Your task to perform on an android device: Go to Android settings Image 0: 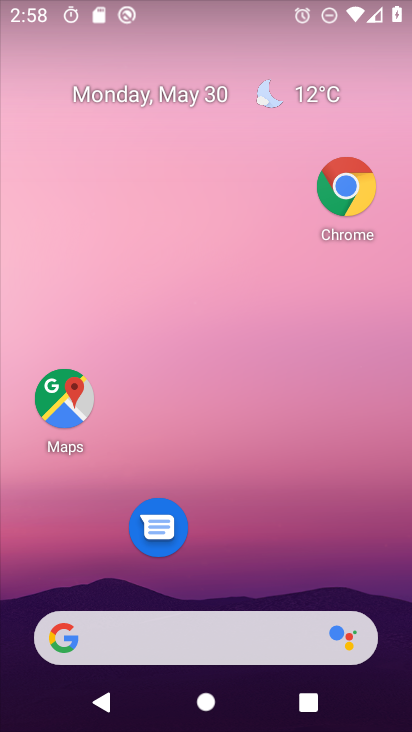
Step 0: drag from (222, 533) to (268, 91)
Your task to perform on an android device: Go to Android settings Image 1: 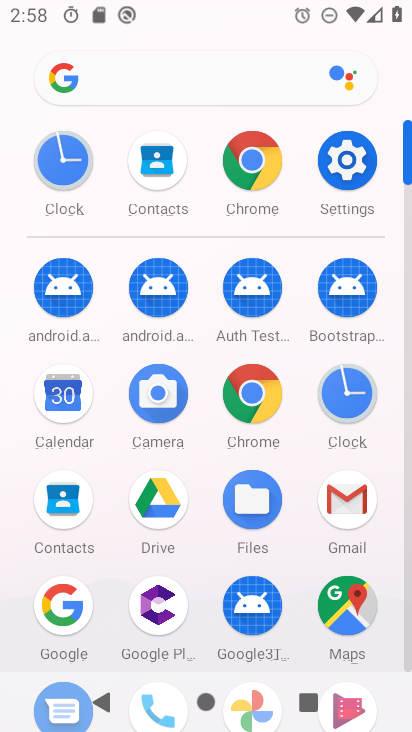
Step 1: click (344, 149)
Your task to perform on an android device: Go to Android settings Image 2: 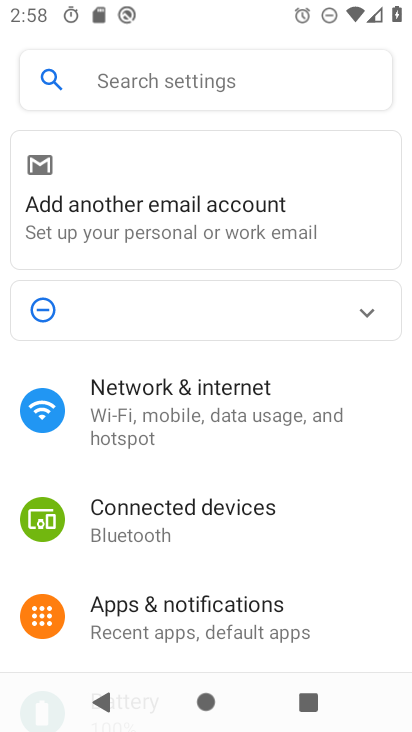
Step 2: drag from (201, 566) to (163, 1)
Your task to perform on an android device: Go to Android settings Image 3: 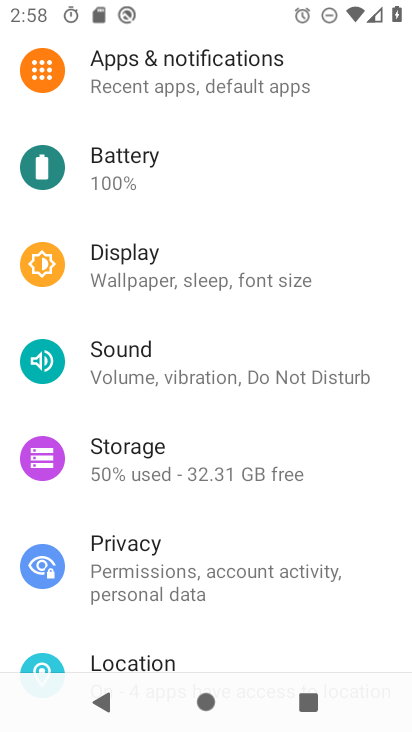
Step 3: drag from (239, 582) to (295, 169)
Your task to perform on an android device: Go to Android settings Image 4: 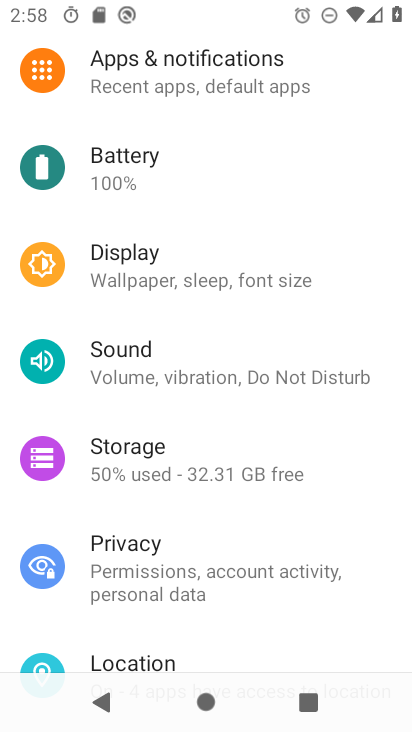
Step 4: drag from (177, 585) to (277, 15)
Your task to perform on an android device: Go to Android settings Image 5: 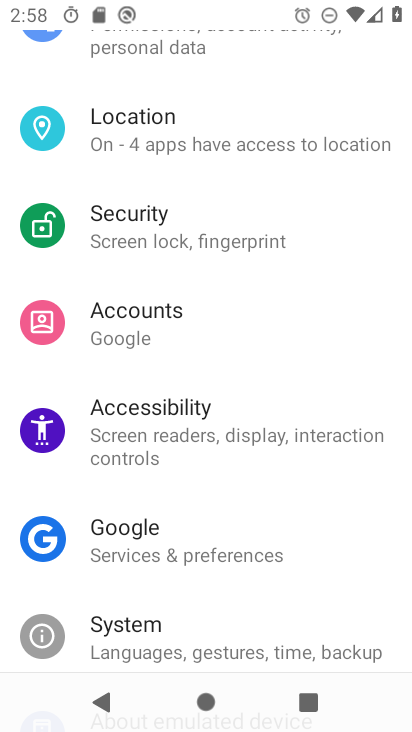
Step 5: drag from (227, 542) to (228, 5)
Your task to perform on an android device: Go to Android settings Image 6: 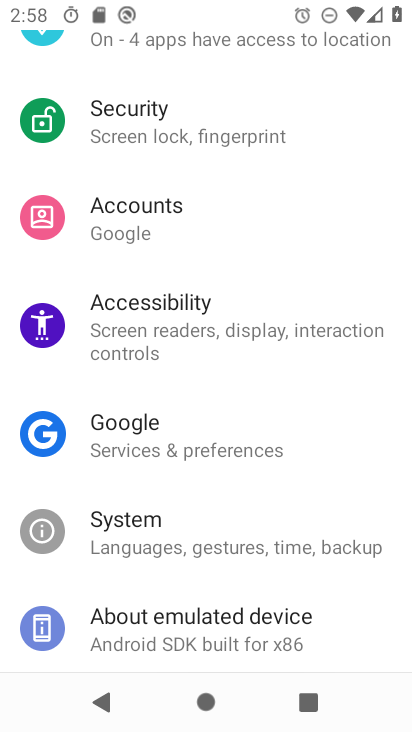
Step 6: click (215, 626)
Your task to perform on an android device: Go to Android settings Image 7: 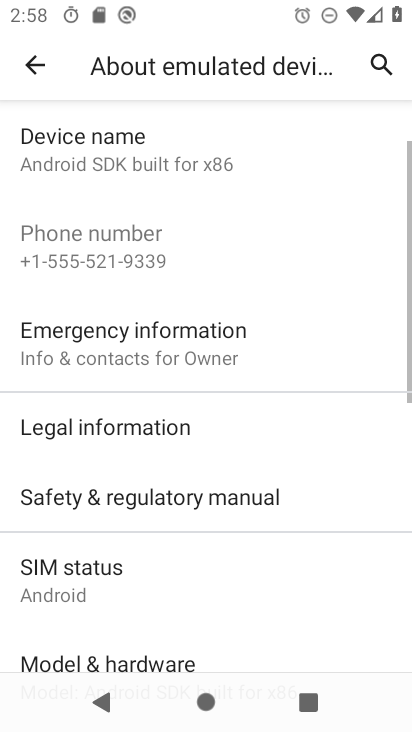
Step 7: drag from (232, 587) to (342, 3)
Your task to perform on an android device: Go to Android settings Image 8: 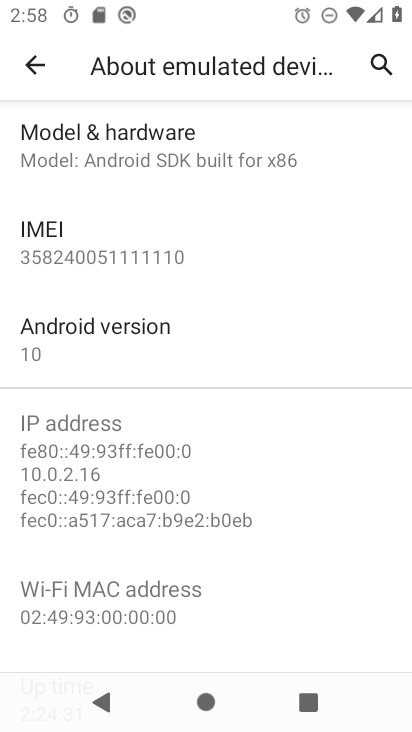
Step 8: click (199, 367)
Your task to perform on an android device: Go to Android settings Image 9: 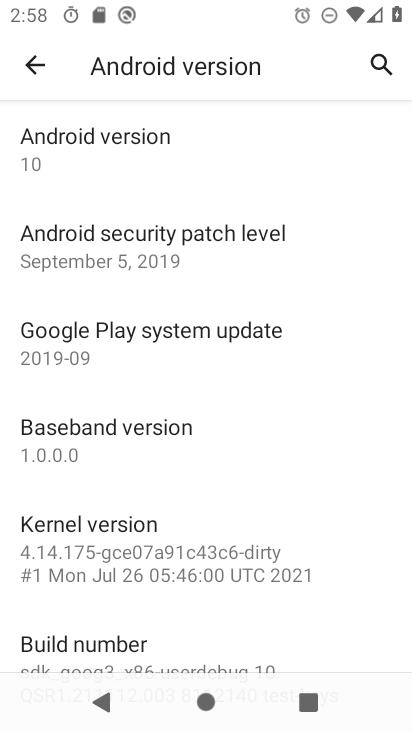
Step 9: click (121, 142)
Your task to perform on an android device: Go to Android settings Image 10: 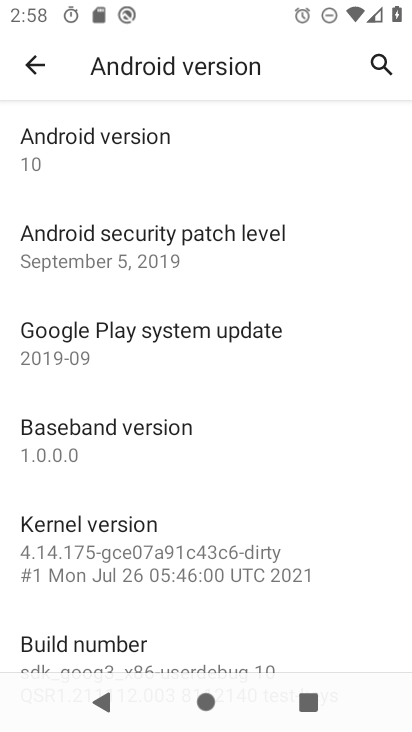
Step 10: task complete